Your task to perform on an android device: Open internet settings Image 0: 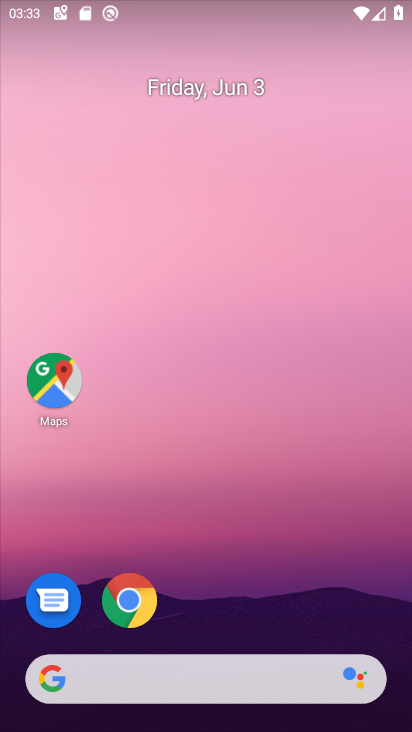
Step 0: drag from (302, 532) to (303, 201)
Your task to perform on an android device: Open internet settings Image 1: 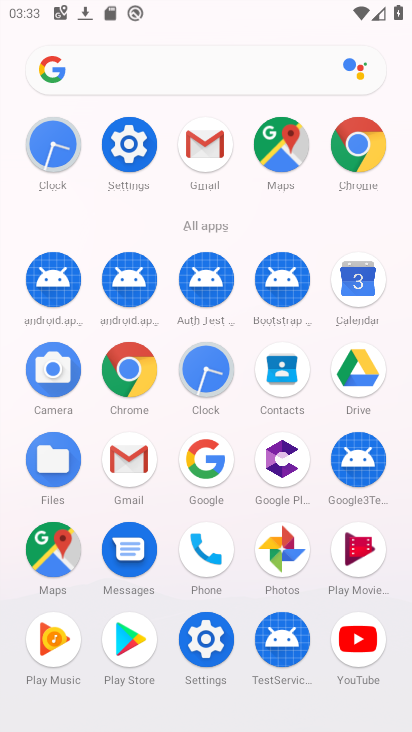
Step 1: click (139, 150)
Your task to perform on an android device: Open internet settings Image 2: 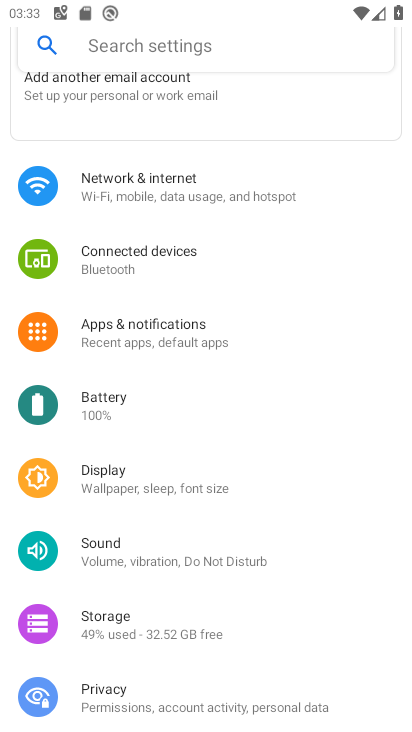
Step 2: click (114, 180)
Your task to perform on an android device: Open internet settings Image 3: 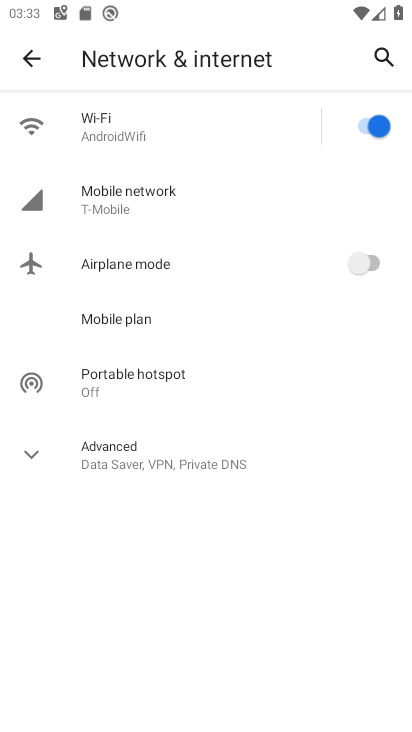
Step 3: click (108, 456)
Your task to perform on an android device: Open internet settings Image 4: 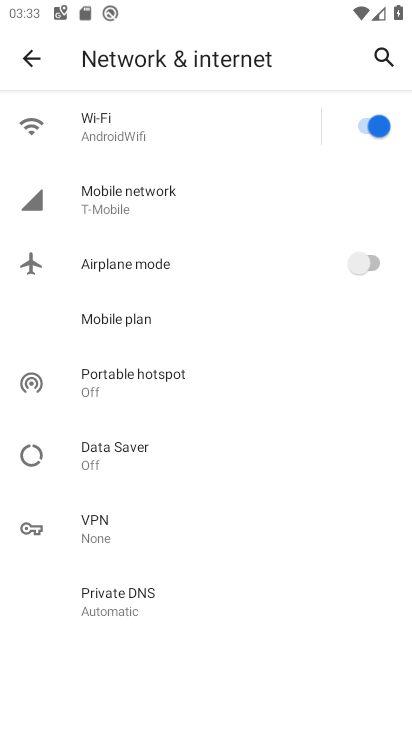
Step 4: task complete